Your task to perform on an android device: turn off location Image 0: 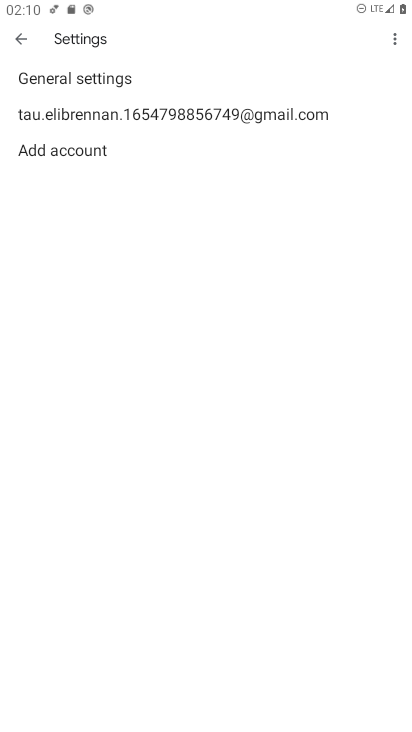
Step 0: click (15, 40)
Your task to perform on an android device: turn off location Image 1: 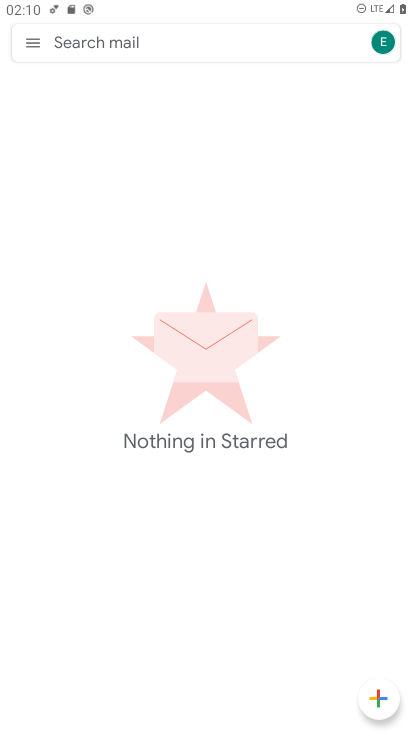
Step 1: press home button
Your task to perform on an android device: turn off location Image 2: 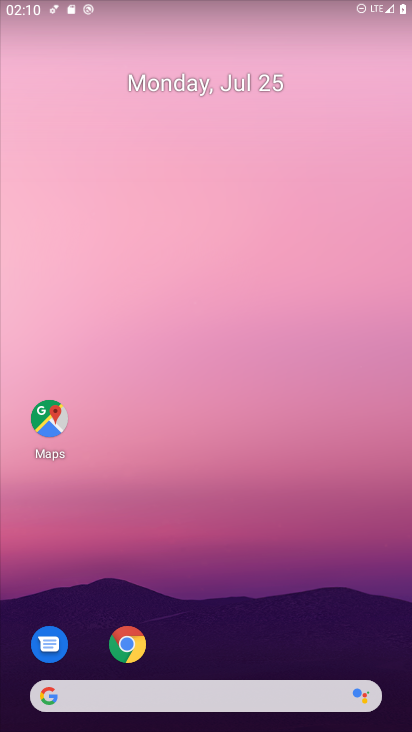
Step 2: drag from (225, 713) to (164, 55)
Your task to perform on an android device: turn off location Image 3: 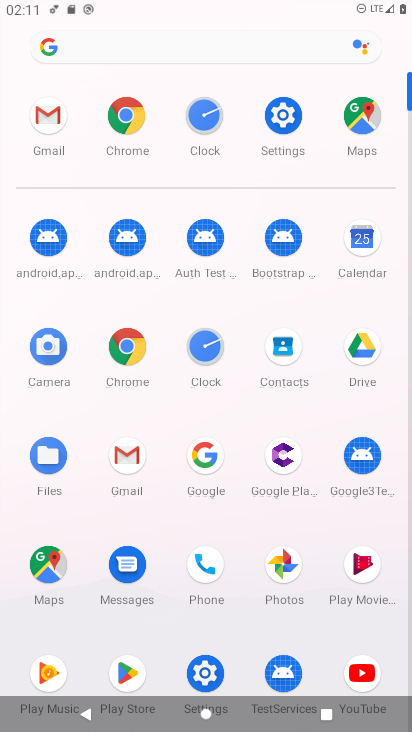
Step 3: click (278, 116)
Your task to perform on an android device: turn off location Image 4: 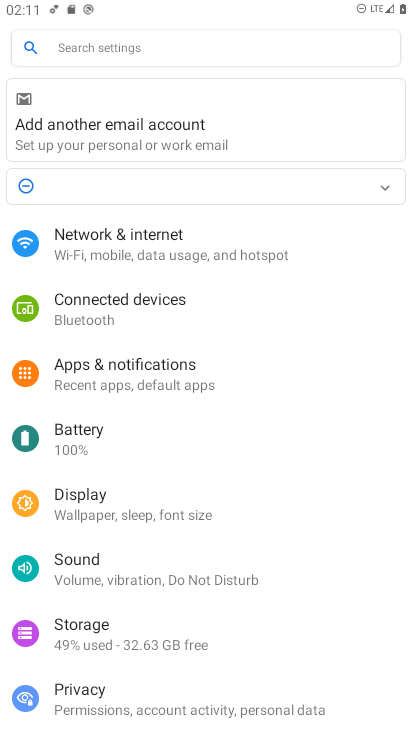
Step 4: drag from (89, 691) to (98, 402)
Your task to perform on an android device: turn off location Image 5: 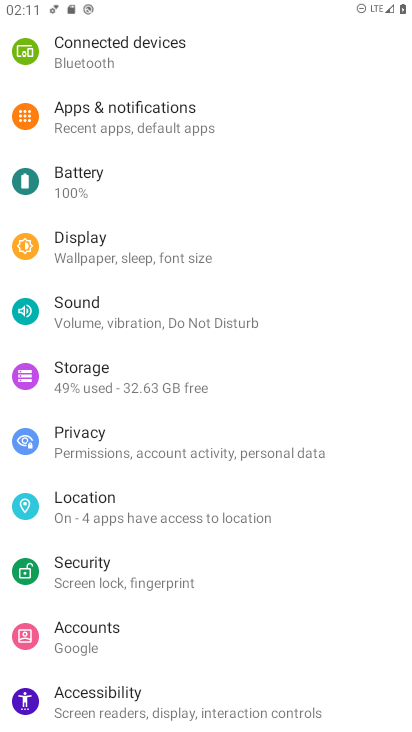
Step 5: click (85, 510)
Your task to perform on an android device: turn off location Image 6: 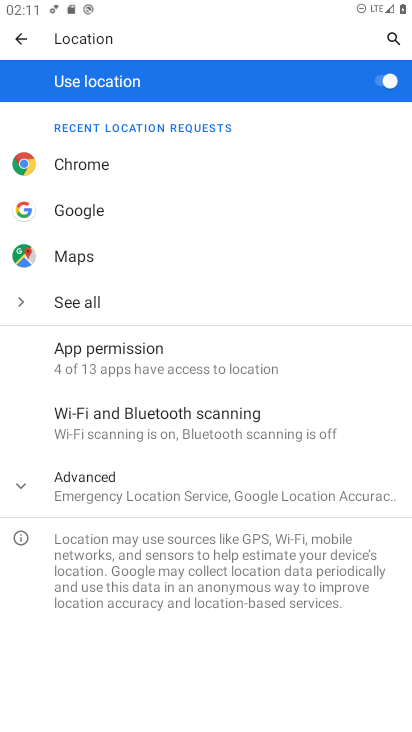
Step 6: click (377, 77)
Your task to perform on an android device: turn off location Image 7: 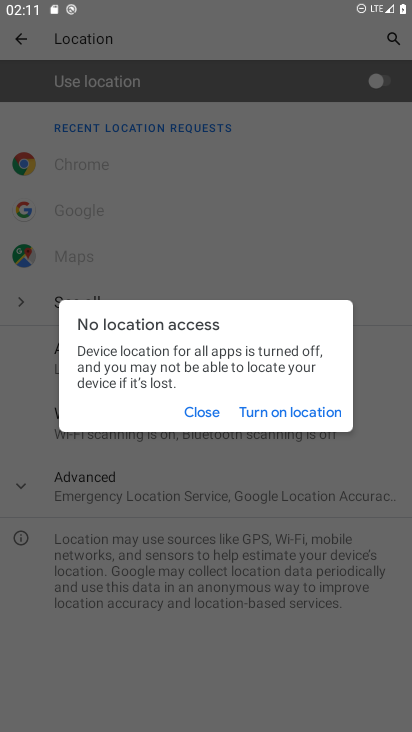
Step 7: task complete